Your task to perform on an android device: turn off location history Image 0: 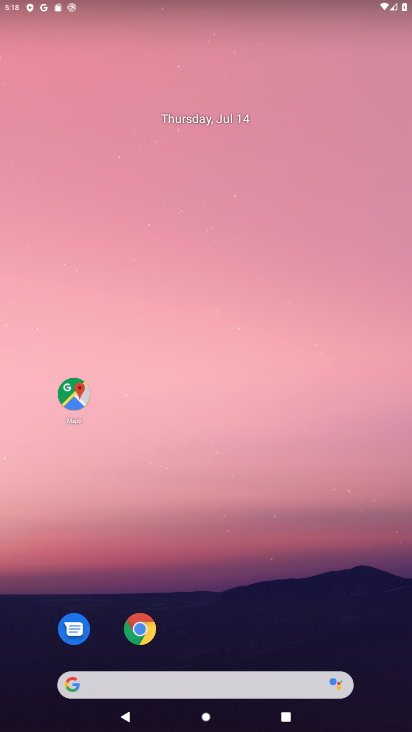
Step 0: drag from (269, 655) to (334, 104)
Your task to perform on an android device: turn off location history Image 1: 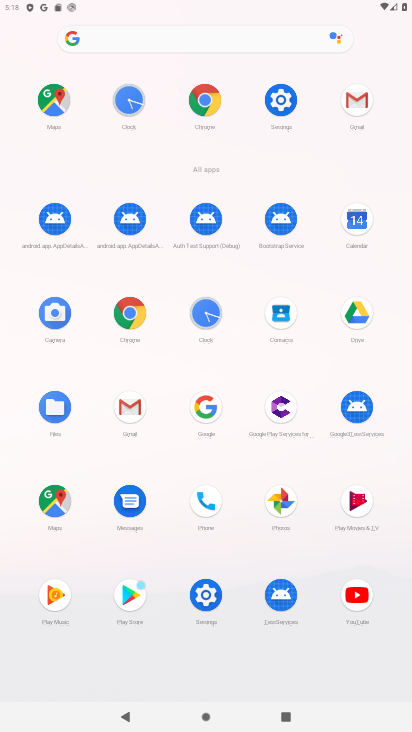
Step 1: click (283, 96)
Your task to perform on an android device: turn off location history Image 2: 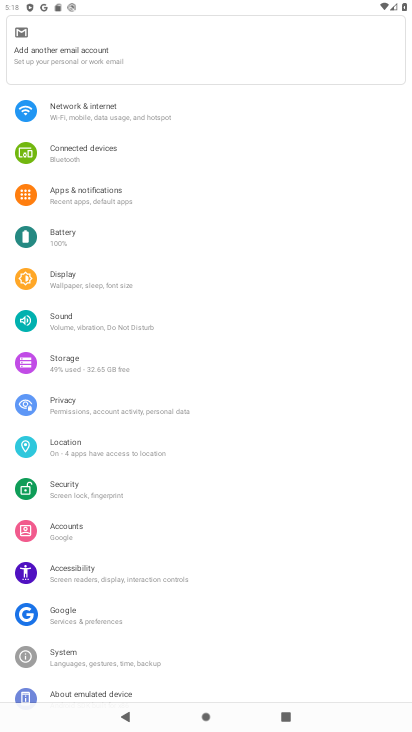
Step 2: click (67, 443)
Your task to perform on an android device: turn off location history Image 3: 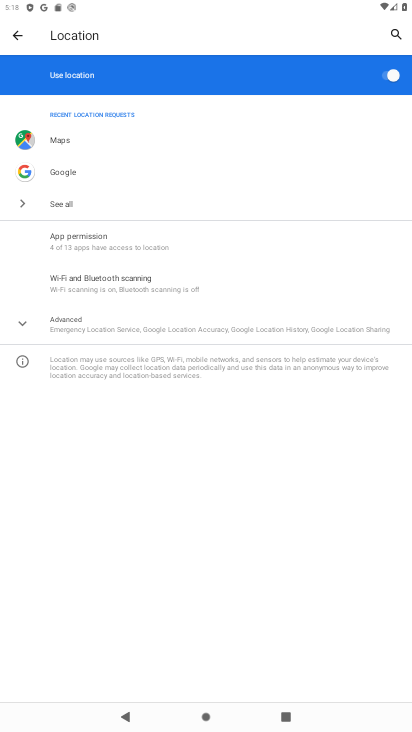
Step 3: click (150, 332)
Your task to perform on an android device: turn off location history Image 4: 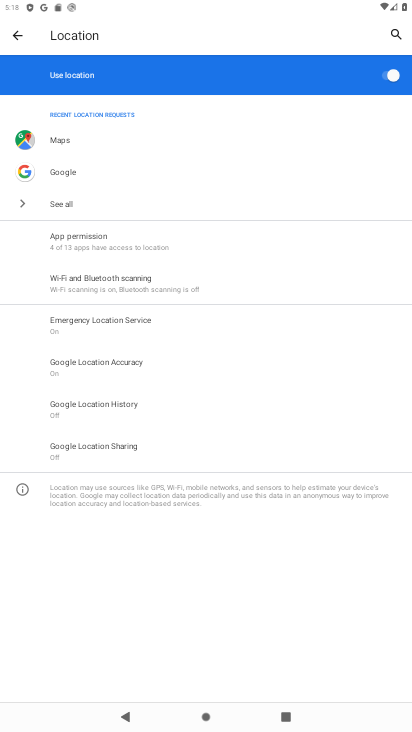
Step 4: click (138, 403)
Your task to perform on an android device: turn off location history Image 5: 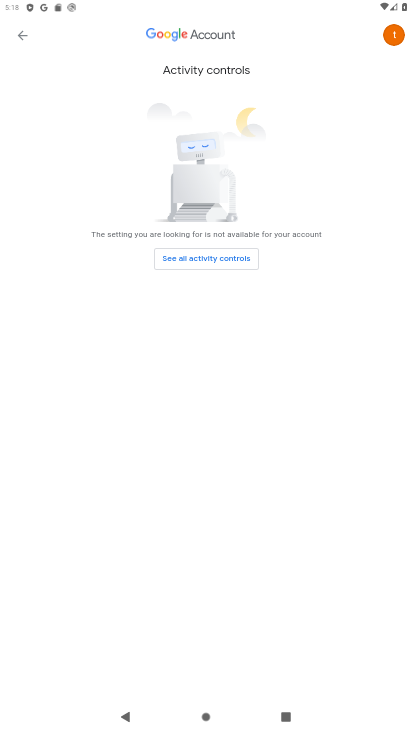
Step 5: click (250, 252)
Your task to perform on an android device: turn off location history Image 6: 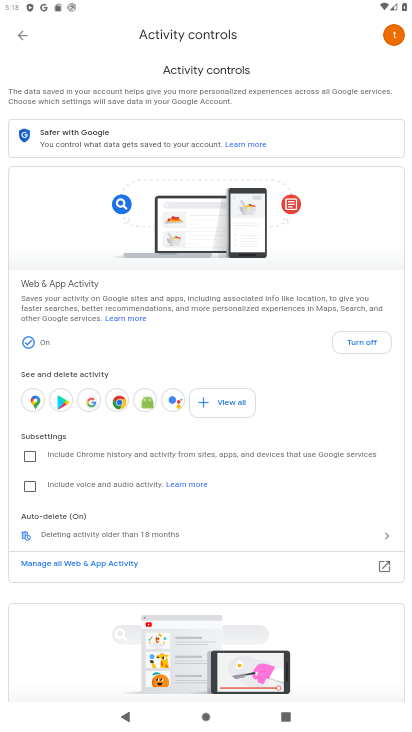
Step 6: click (367, 342)
Your task to perform on an android device: turn off location history Image 7: 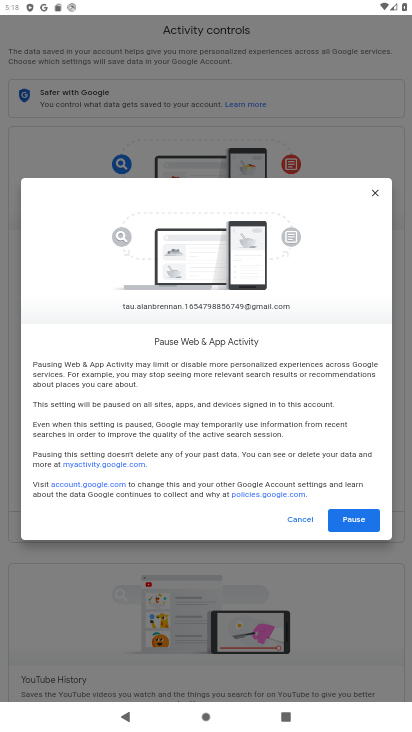
Step 7: click (354, 513)
Your task to perform on an android device: turn off location history Image 8: 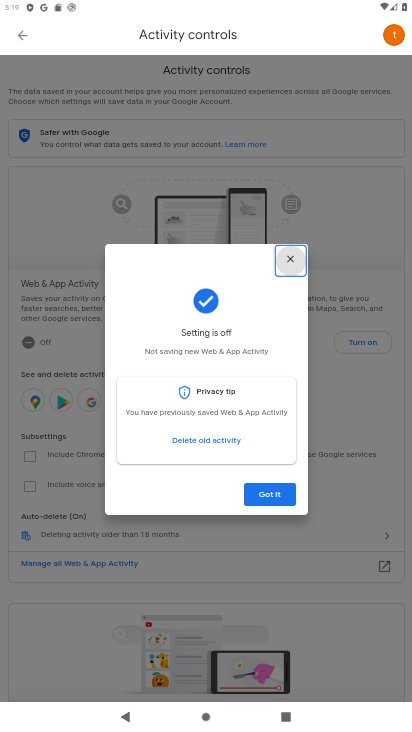
Step 8: task complete